Your task to perform on an android device: turn on the 24-hour format for clock Image 0: 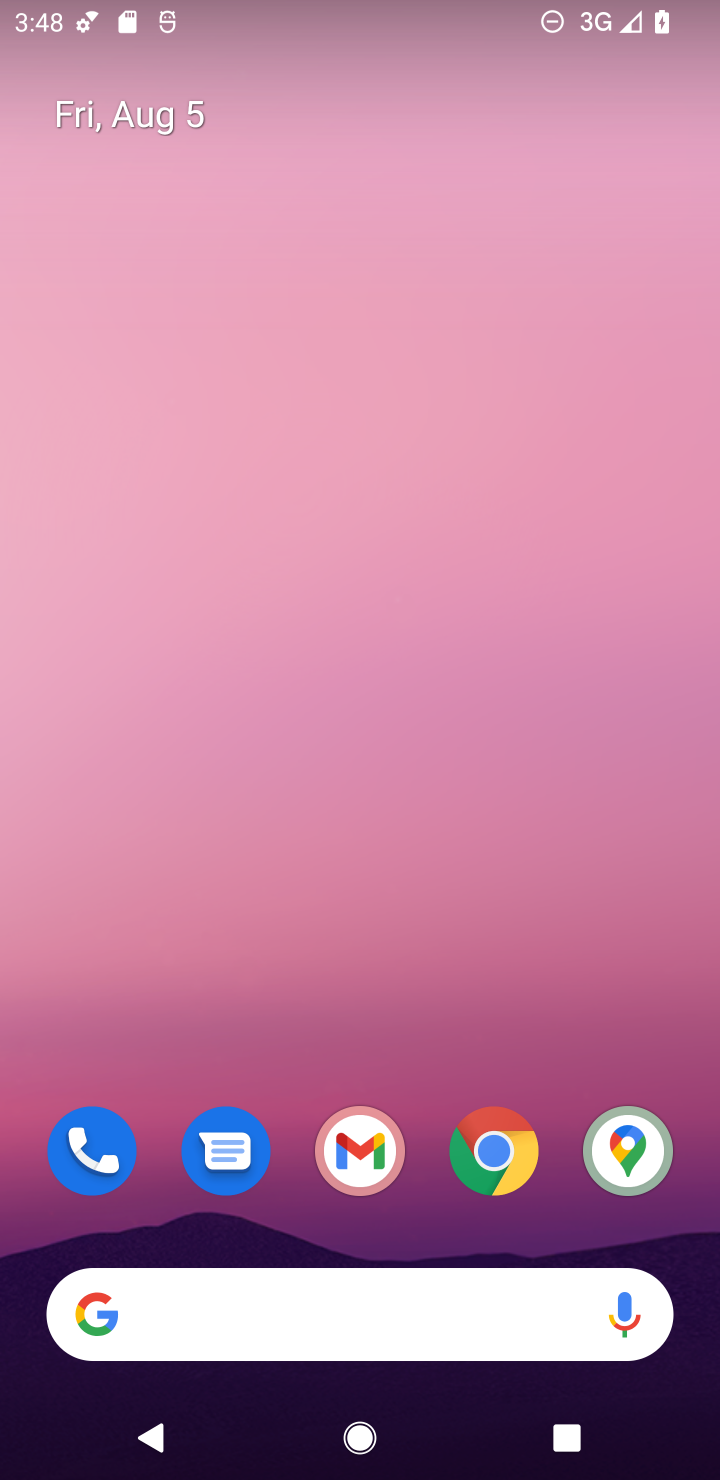
Step 0: drag from (339, 1046) to (302, 10)
Your task to perform on an android device: turn on the 24-hour format for clock Image 1: 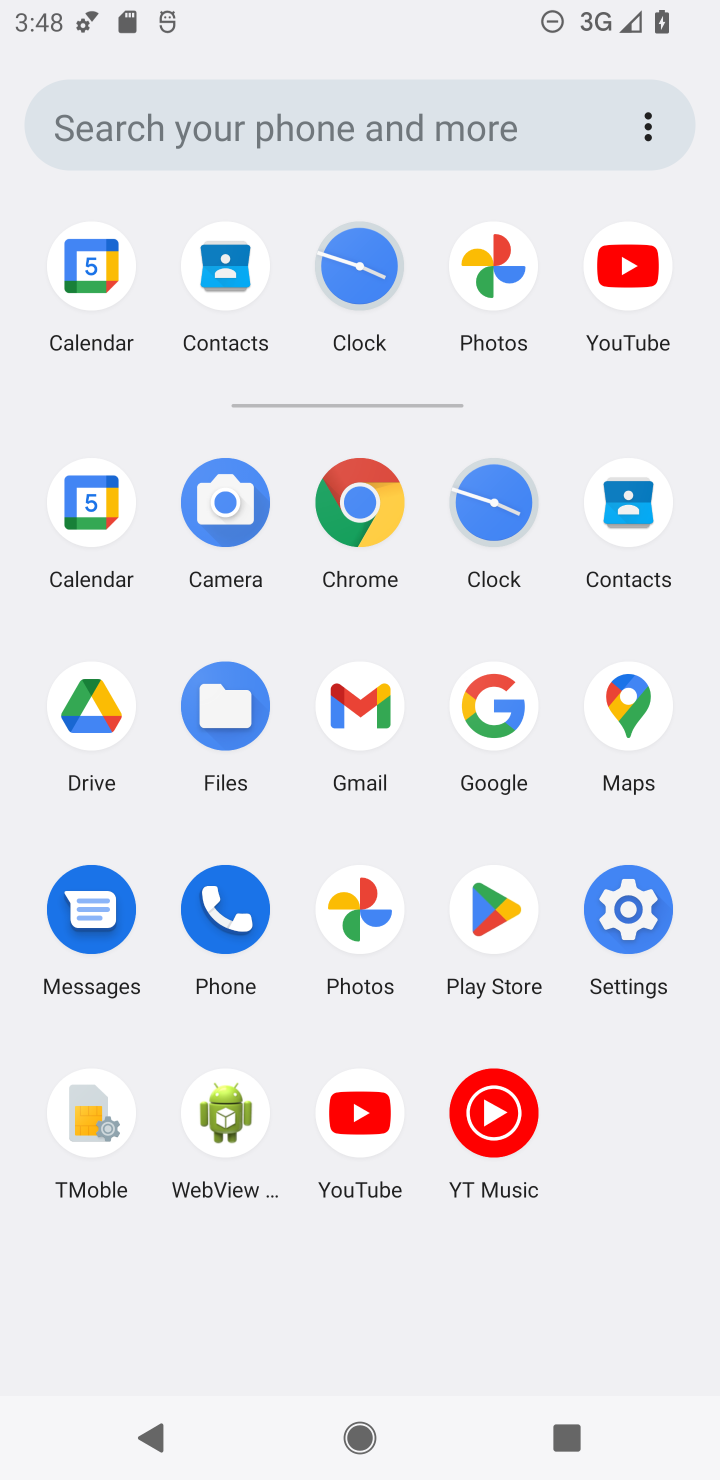
Step 1: click (494, 544)
Your task to perform on an android device: turn on the 24-hour format for clock Image 2: 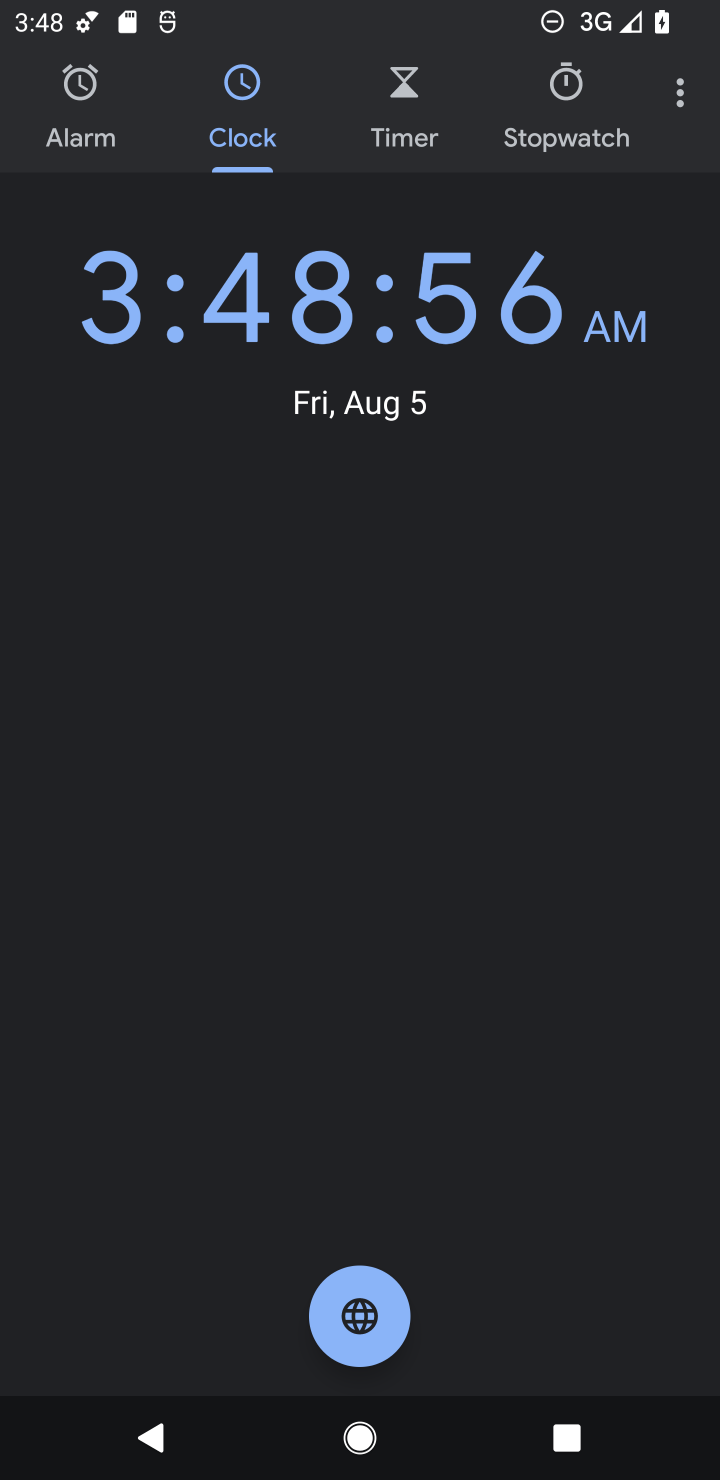
Step 2: click (659, 102)
Your task to perform on an android device: turn on the 24-hour format for clock Image 3: 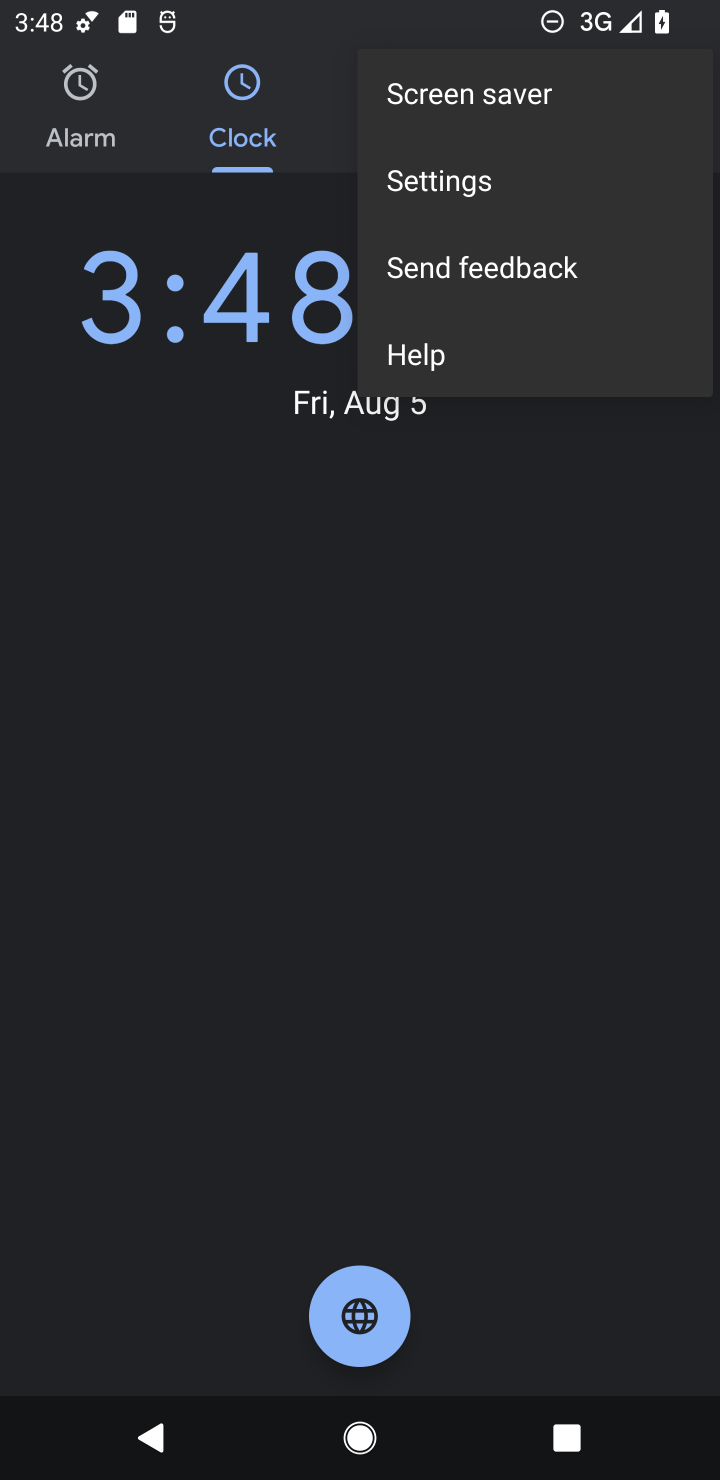
Step 3: click (465, 150)
Your task to perform on an android device: turn on the 24-hour format for clock Image 4: 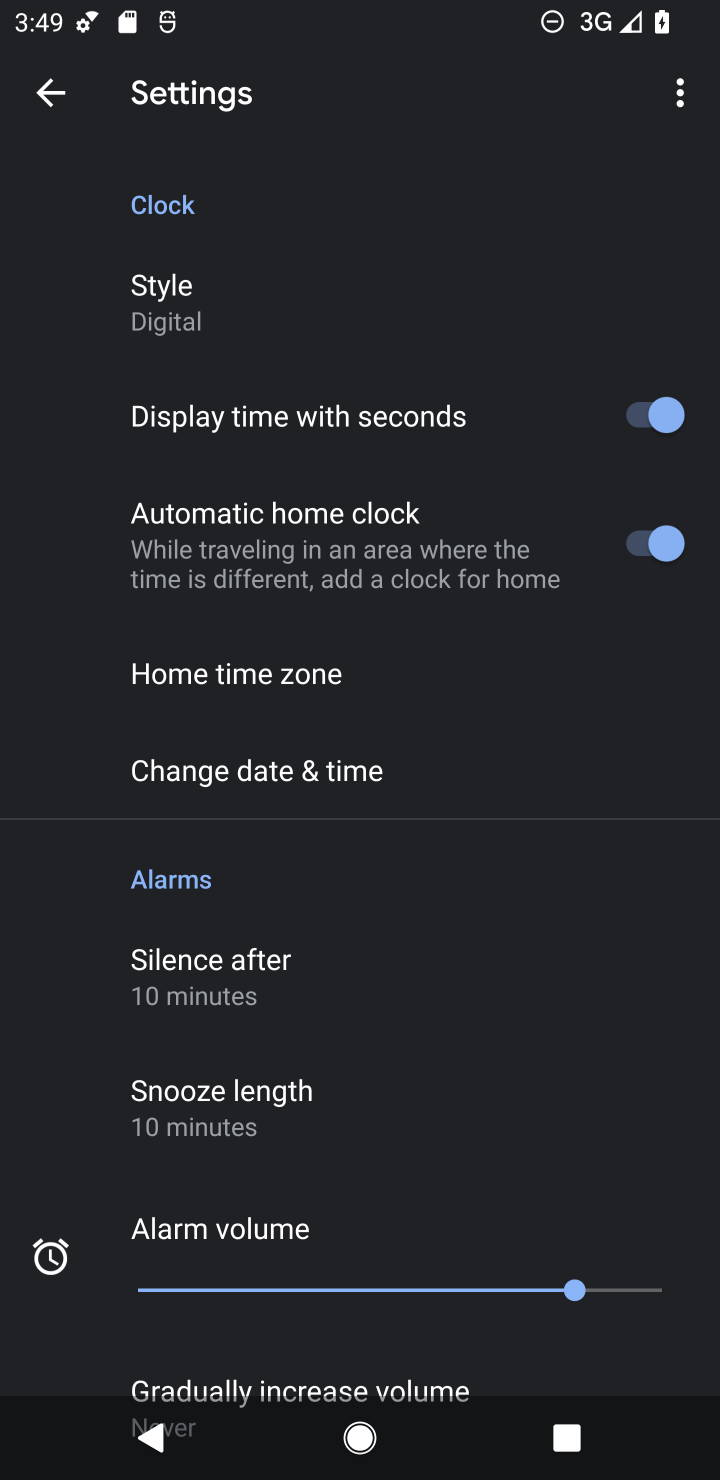
Step 4: click (403, 795)
Your task to perform on an android device: turn on the 24-hour format for clock Image 5: 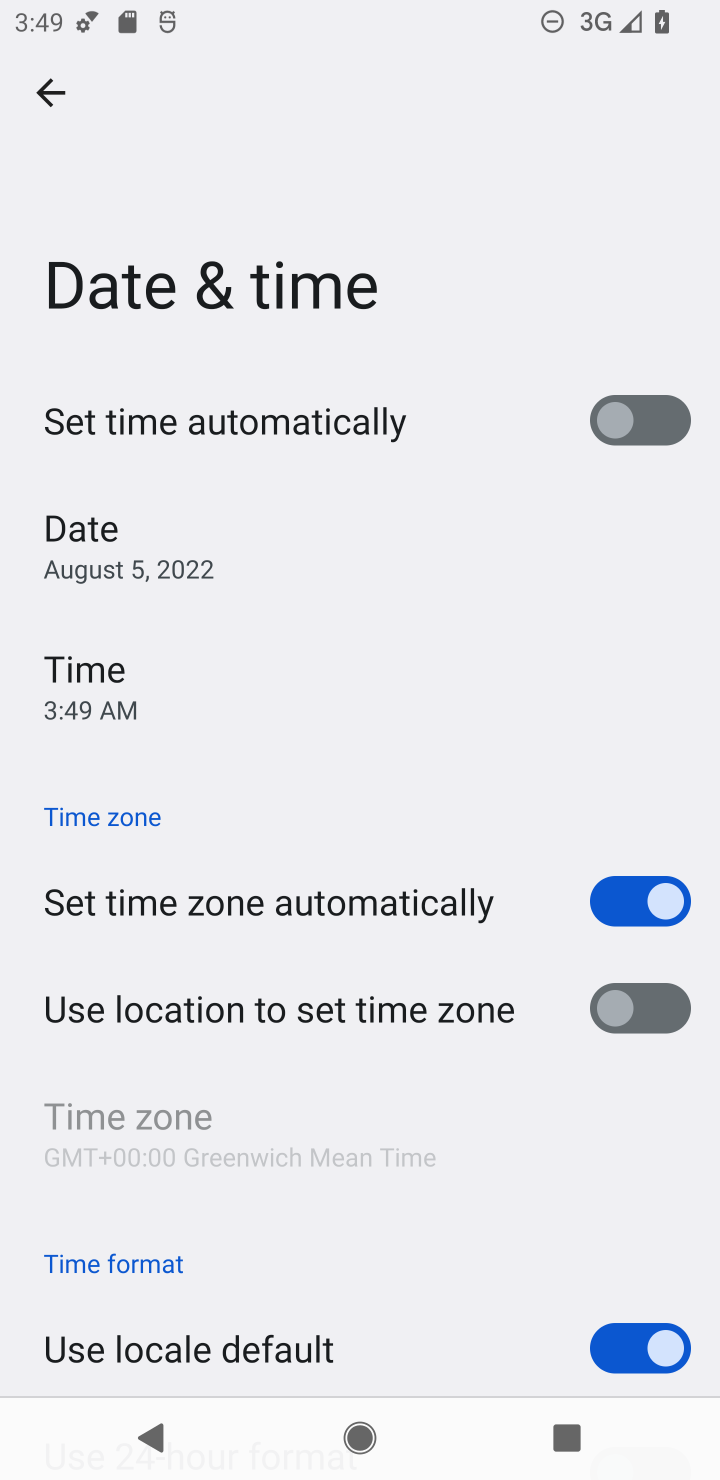
Step 5: drag from (410, 1240) to (396, 552)
Your task to perform on an android device: turn on the 24-hour format for clock Image 6: 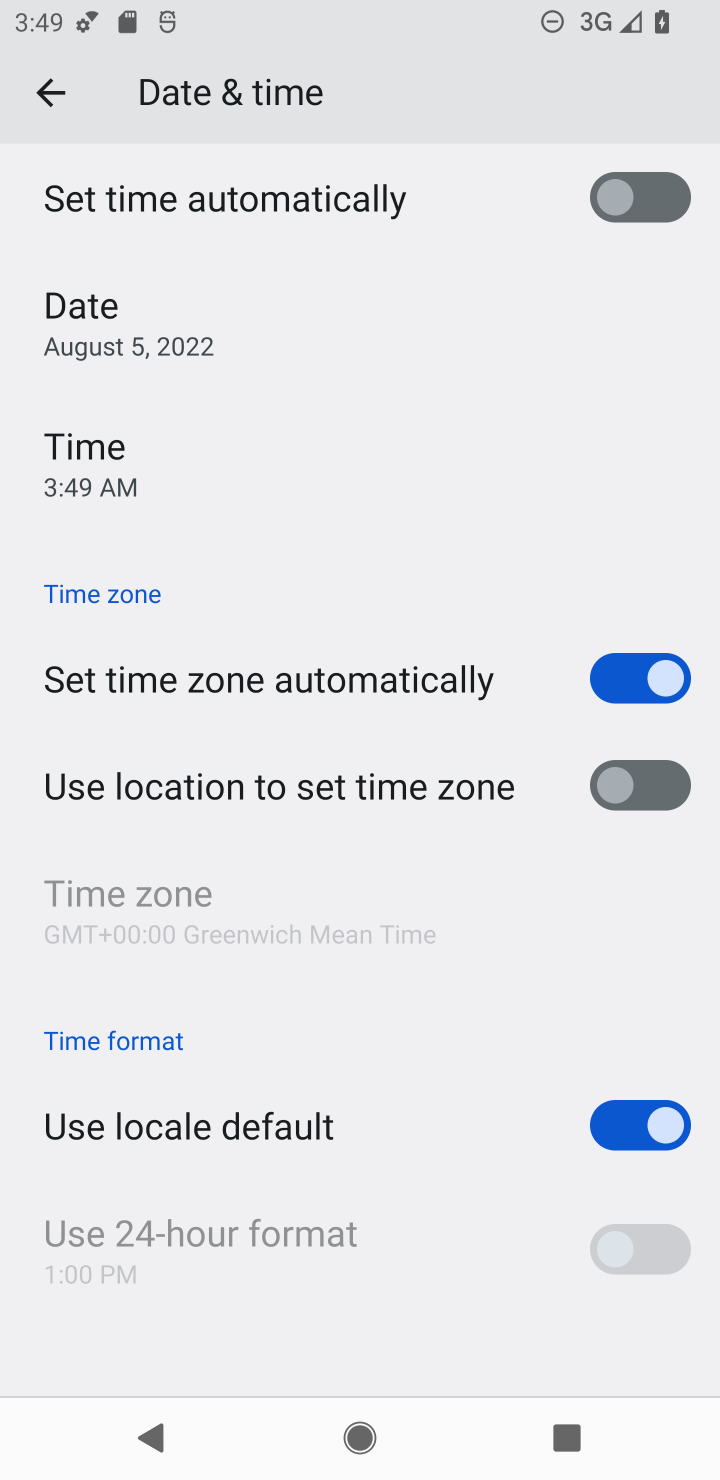
Step 6: click (621, 1121)
Your task to perform on an android device: turn on the 24-hour format for clock Image 7: 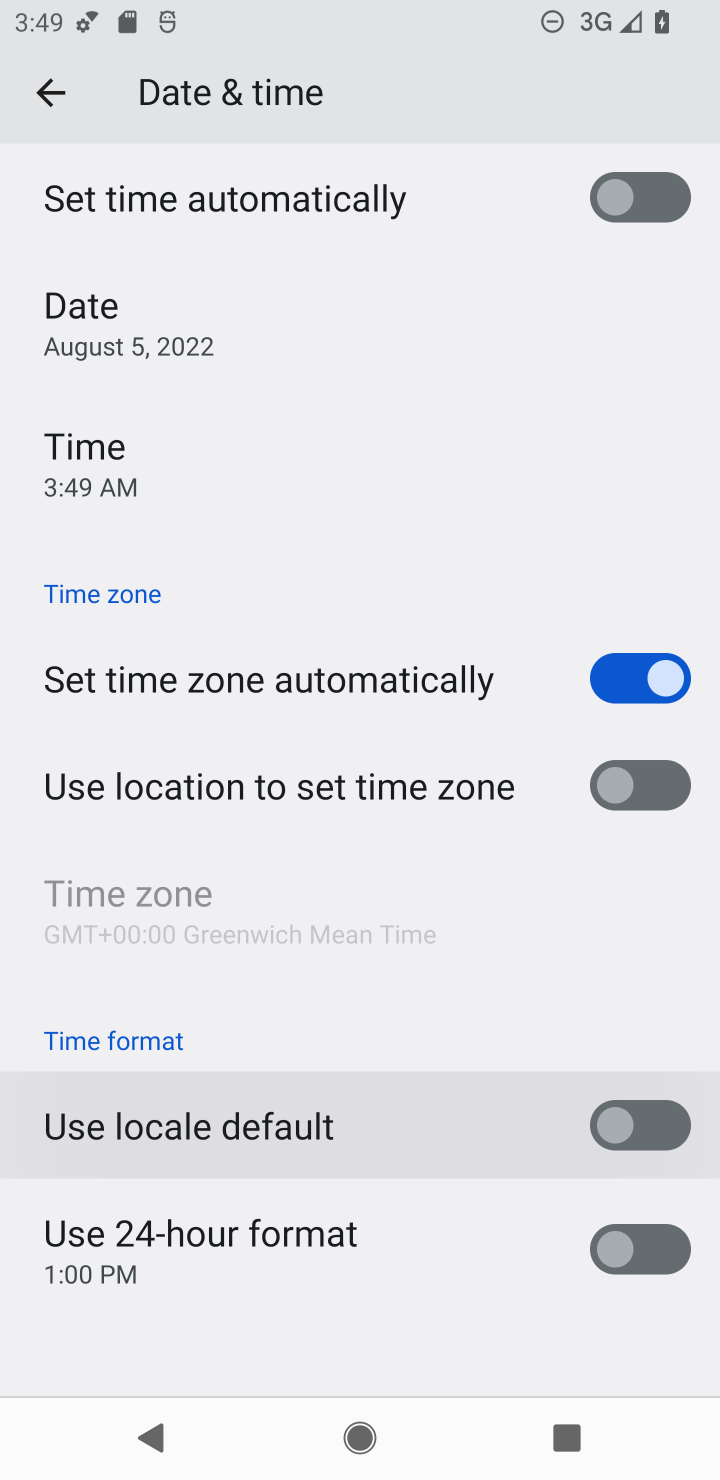
Step 7: click (642, 1273)
Your task to perform on an android device: turn on the 24-hour format for clock Image 8: 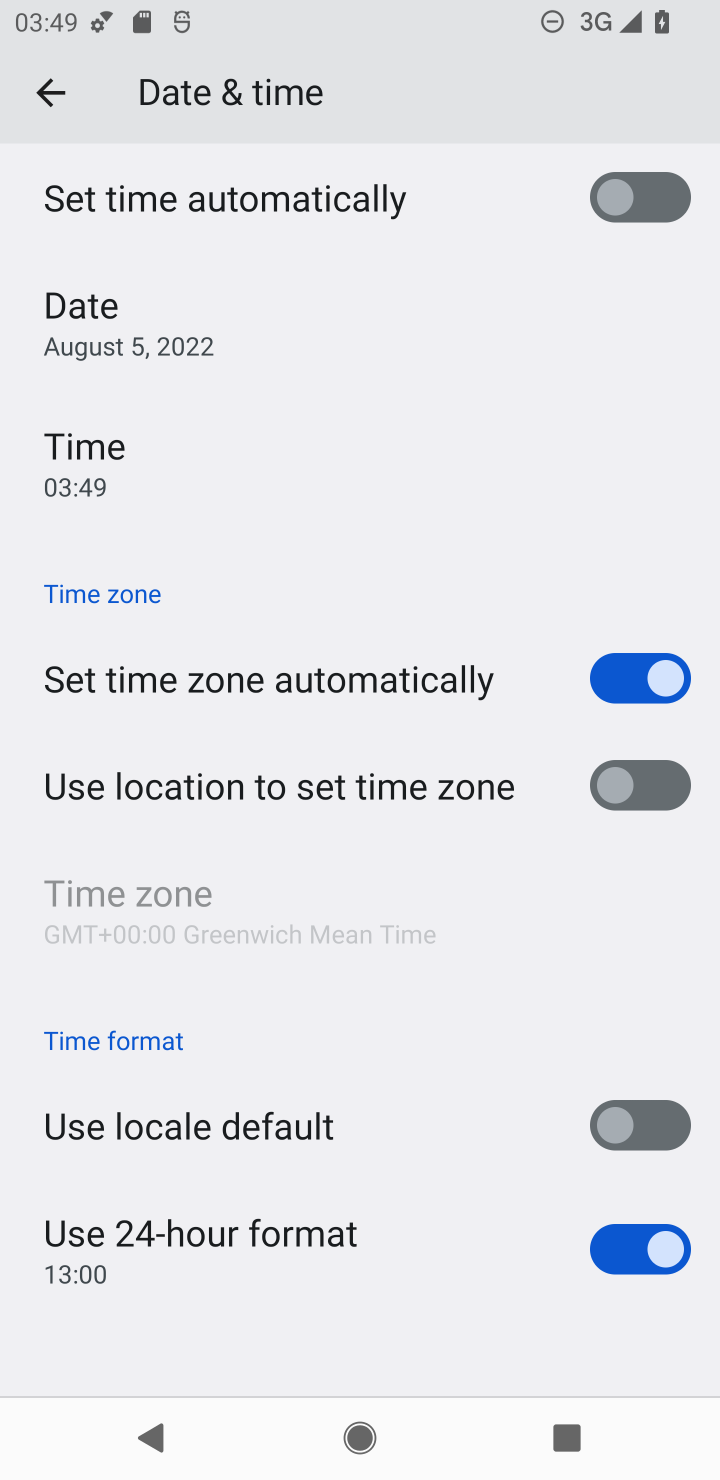
Step 8: task complete